Your task to perform on an android device: find photos in the google photos app Image 0: 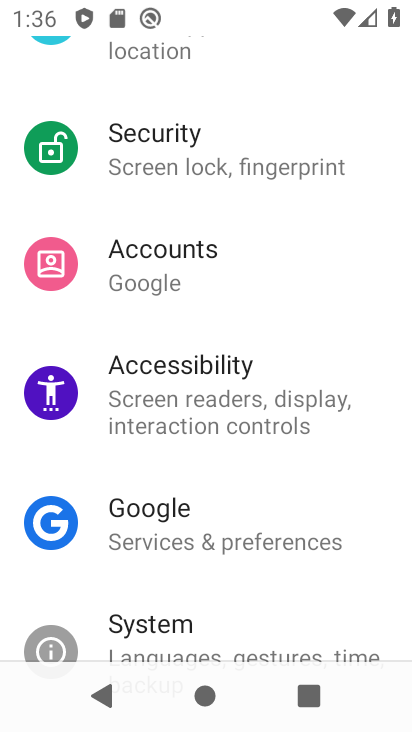
Step 0: press home button
Your task to perform on an android device: find photos in the google photos app Image 1: 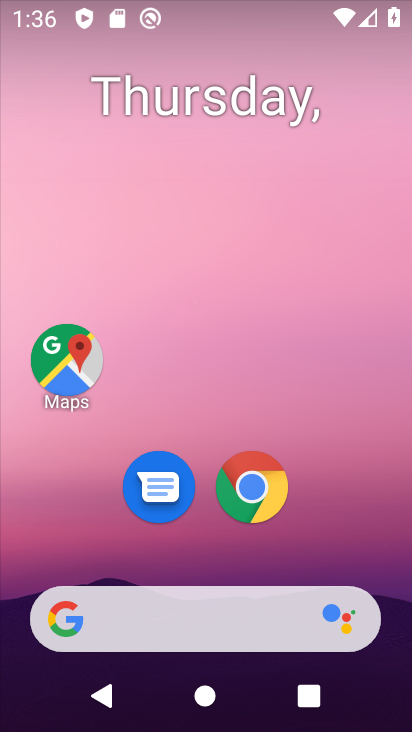
Step 1: drag from (306, 588) to (377, 23)
Your task to perform on an android device: find photos in the google photos app Image 2: 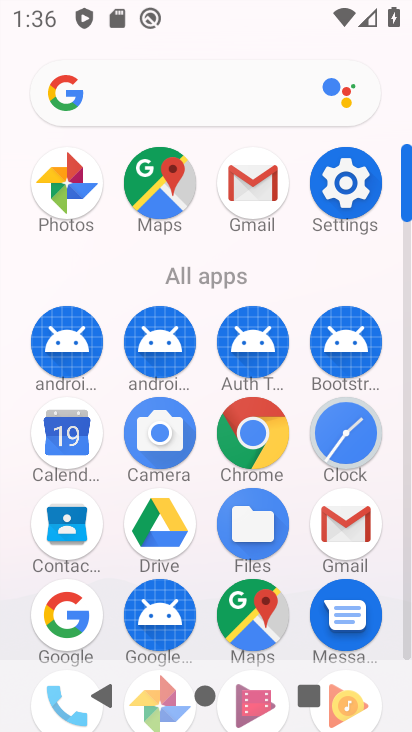
Step 2: click (62, 182)
Your task to perform on an android device: find photos in the google photos app Image 3: 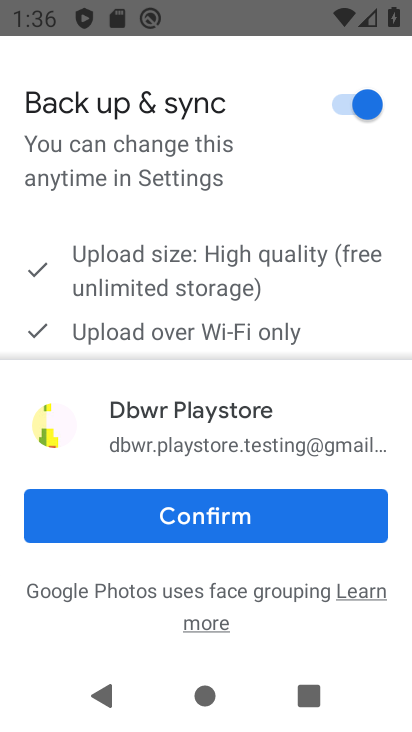
Step 3: click (235, 520)
Your task to perform on an android device: find photos in the google photos app Image 4: 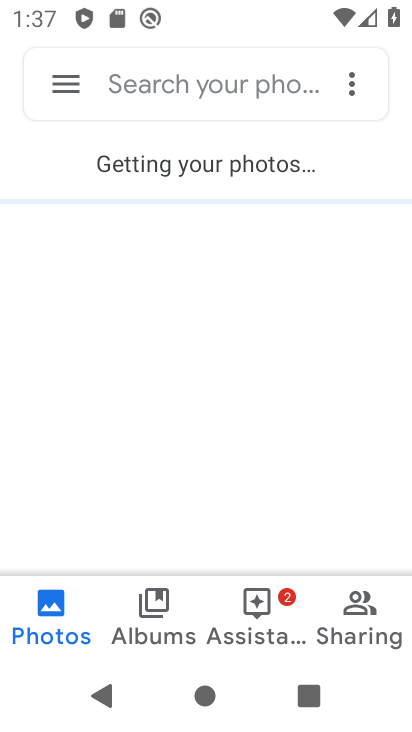
Step 4: task complete